Your task to perform on an android device: star an email in the gmail app Image 0: 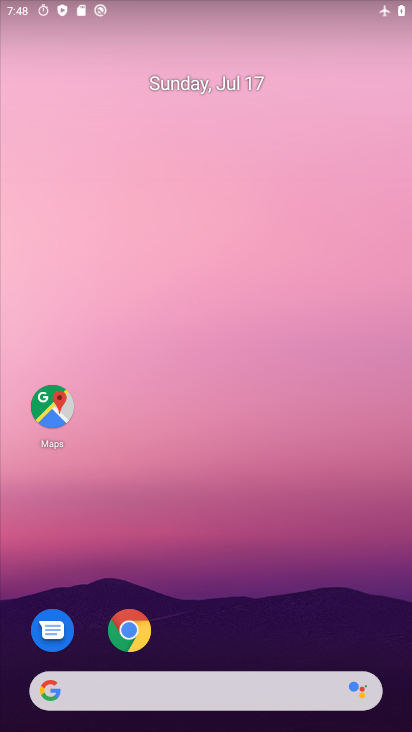
Step 0: drag from (292, 619) to (8, 310)
Your task to perform on an android device: star an email in the gmail app Image 1: 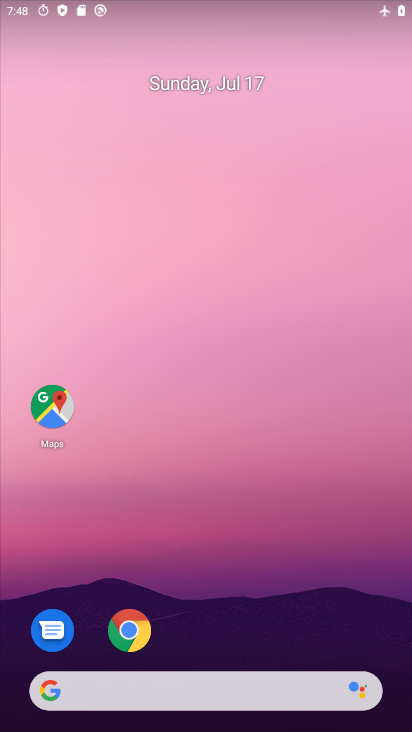
Step 1: drag from (226, 585) to (219, 6)
Your task to perform on an android device: star an email in the gmail app Image 2: 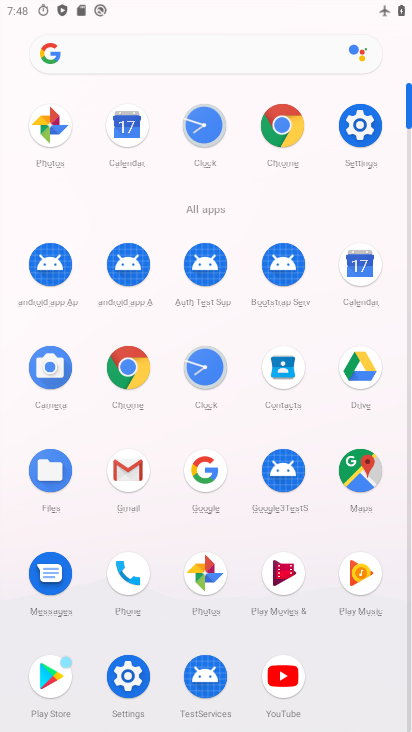
Step 2: click (142, 469)
Your task to perform on an android device: star an email in the gmail app Image 3: 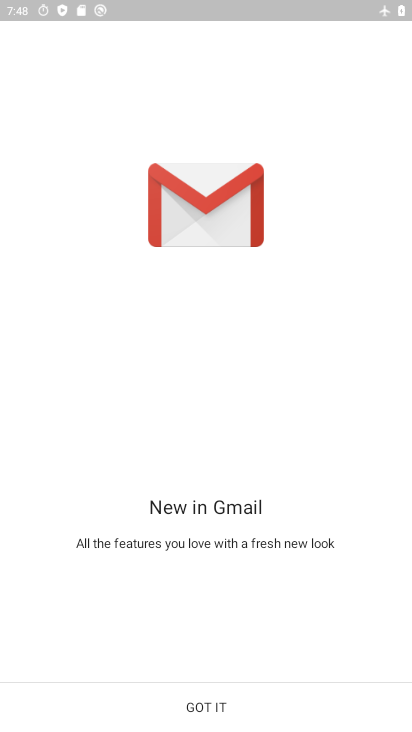
Step 3: click (196, 707)
Your task to perform on an android device: star an email in the gmail app Image 4: 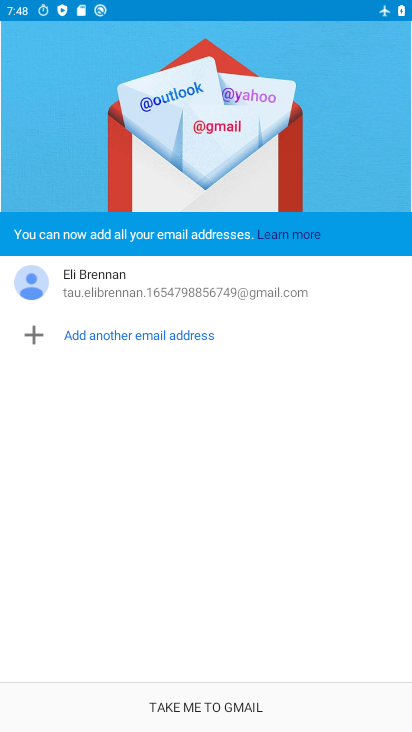
Step 4: click (196, 707)
Your task to perform on an android device: star an email in the gmail app Image 5: 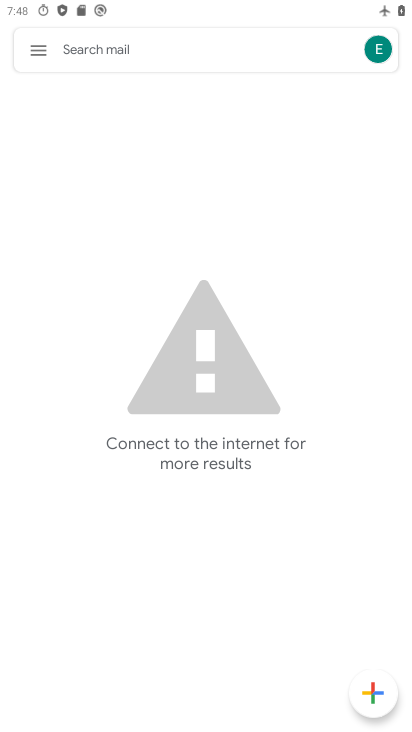
Step 5: click (30, 44)
Your task to perform on an android device: star an email in the gmail app Image 6: 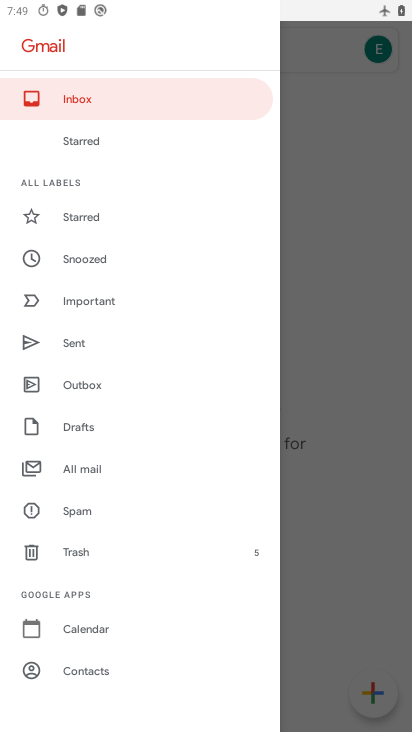
Step 6: click (142, 97)
Your task to perform on an android device: star an email in the gmail app Image 7: 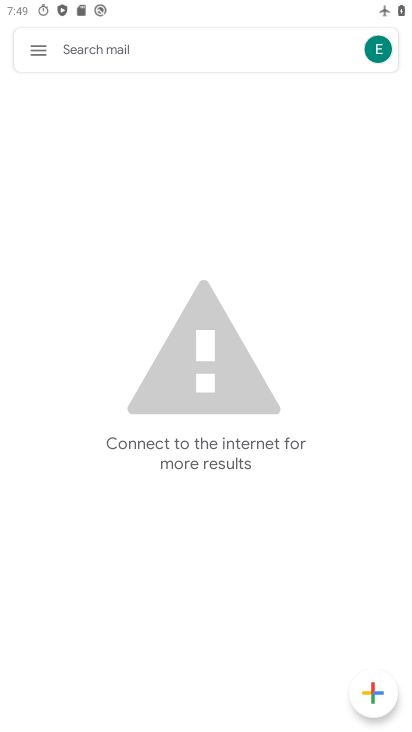
Step 7: task complete